Your task to perform on an android device: turn pop-ups on in chrome Image 0: 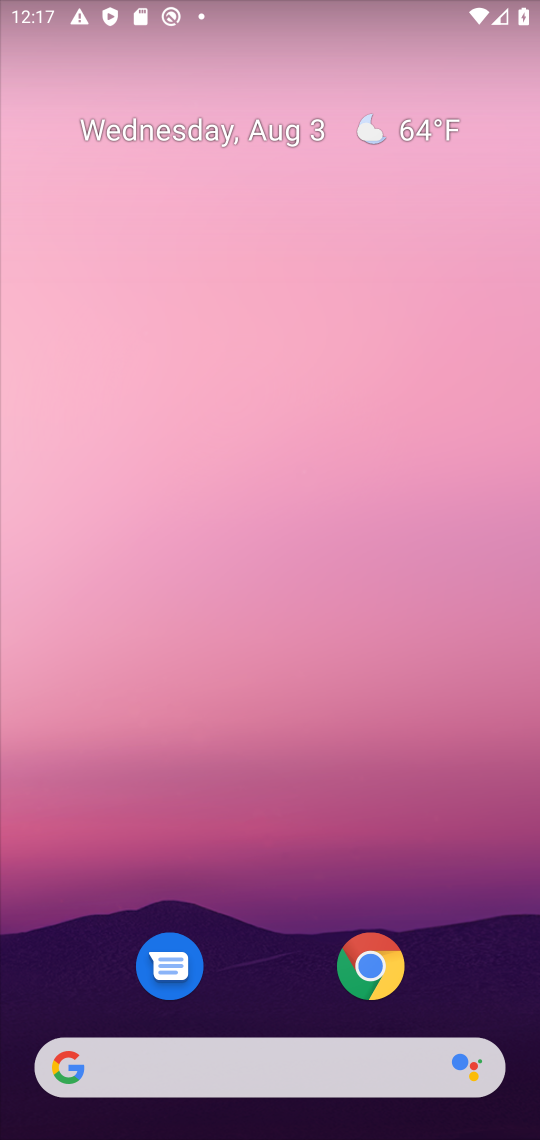
Step 0: click (355, 959)
Your task to perform on an android device: turn pop-ups on in chrome Image 1: 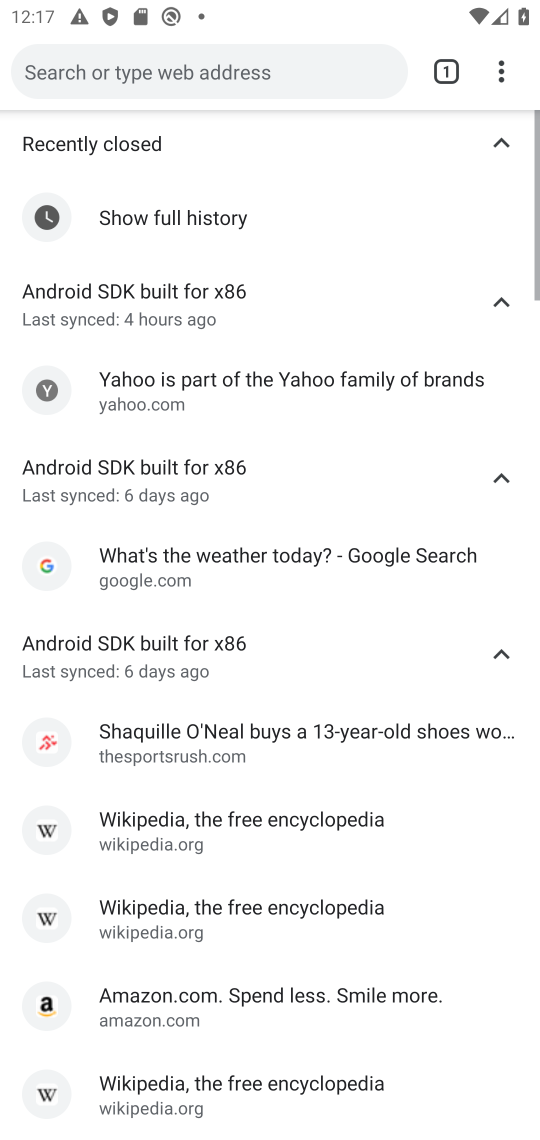
Step 1: click (489, 40)
Your task to perform on an android device: turn pop-ups on in chrome Image 2: 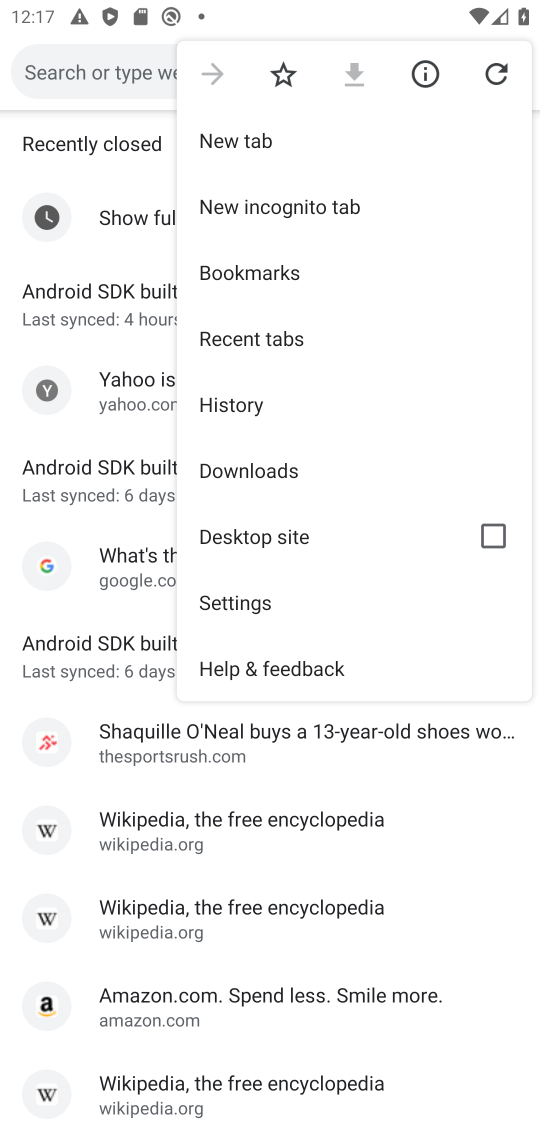
Step 2: click (287, 612)
Your task to perform on an android device: turn pop-ups on in chrome Image 3: 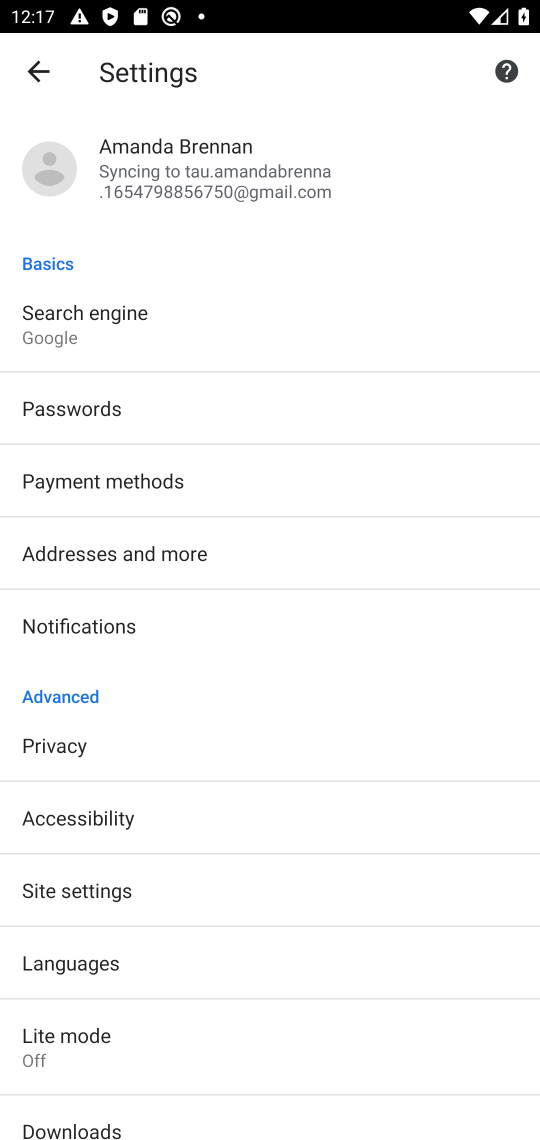
Step 3: click (155, 891)
Your task to perform on an android device: turn pop-ups on in chrome Image 4: 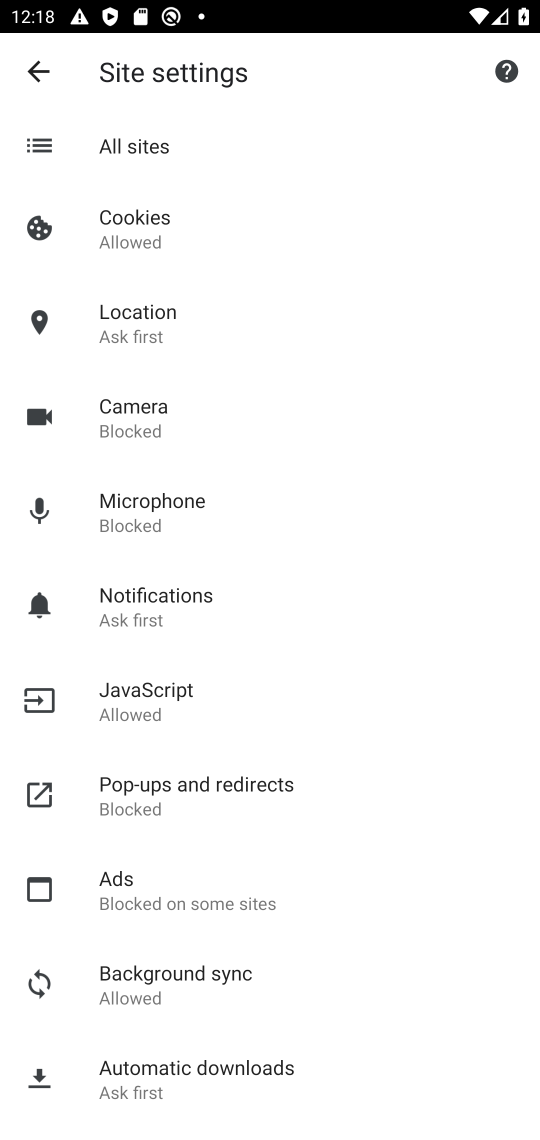
Step 4: click (246, 803)
Your task to perform on an android device: turn pop-ups on in chrome Image 5: 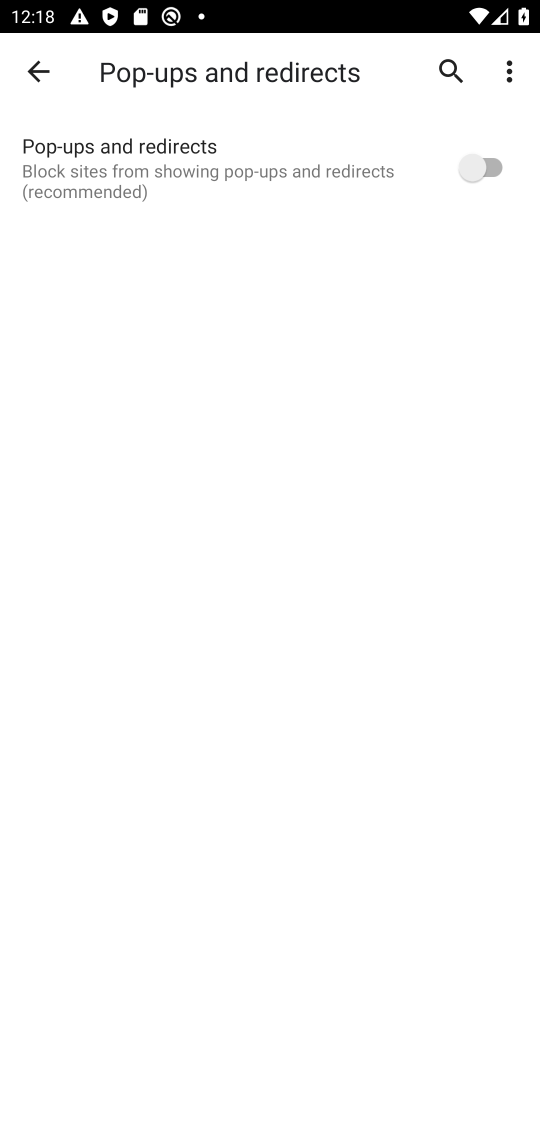
Step 5: click (489, 160)
Your task to perform on an android device: turn pop-ups on in chrome Image 6: 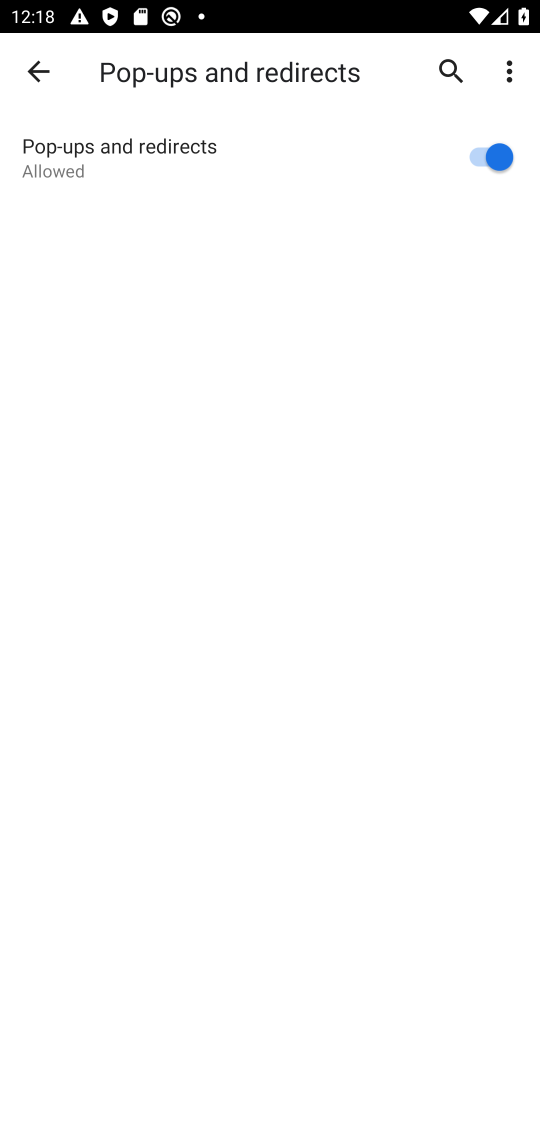
Step 6: task complete